Your task to perform on an android device: Open the web browser Image 0: 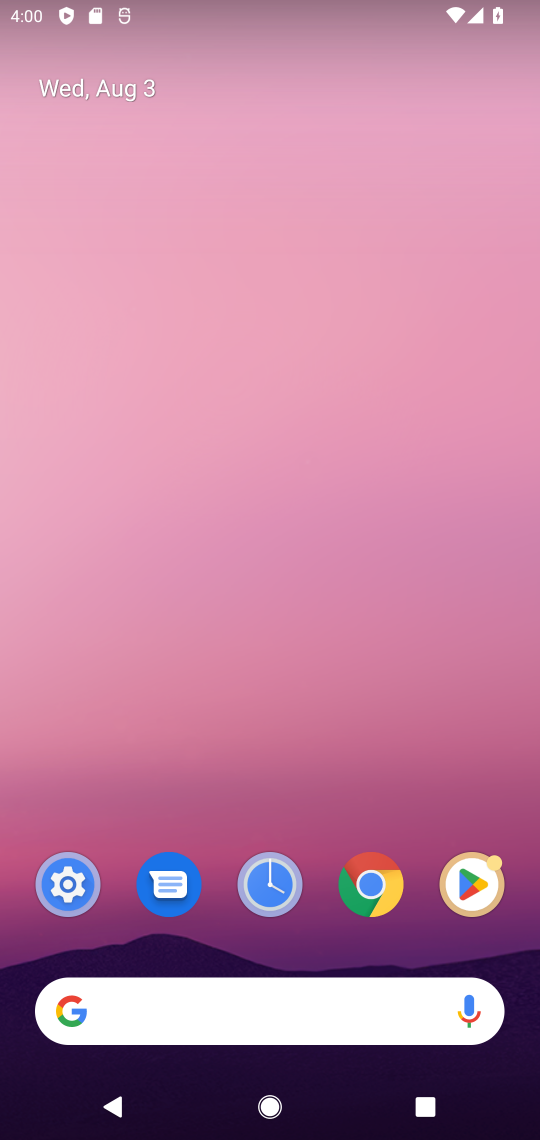
Step 0: press home button
Your task to perform on an android device: Open the web browser Image 1: 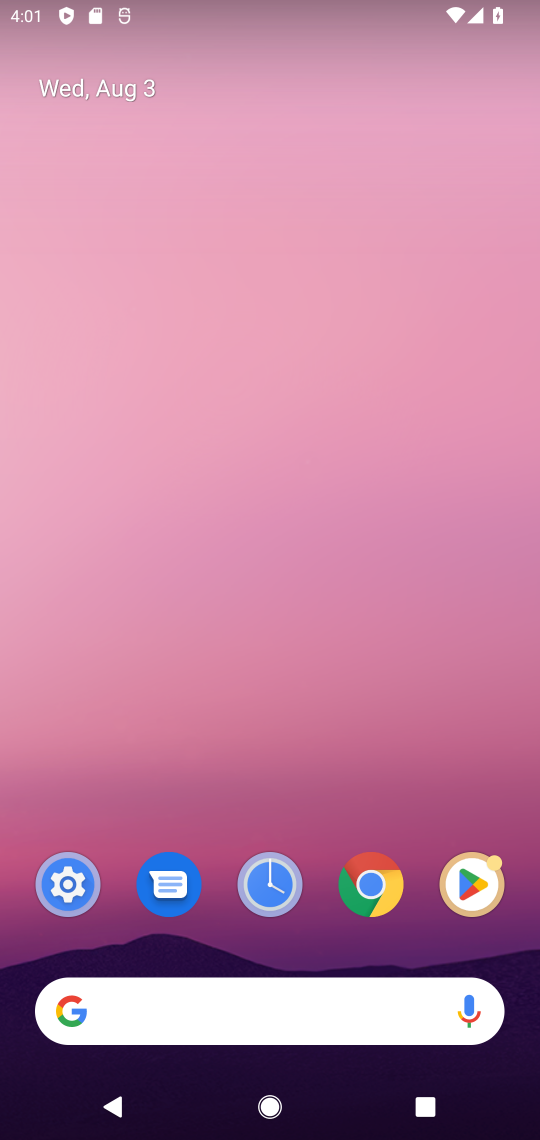
Step 1: click (363, 882)
Your task to perform on an android device: Open the web browser Image 2: 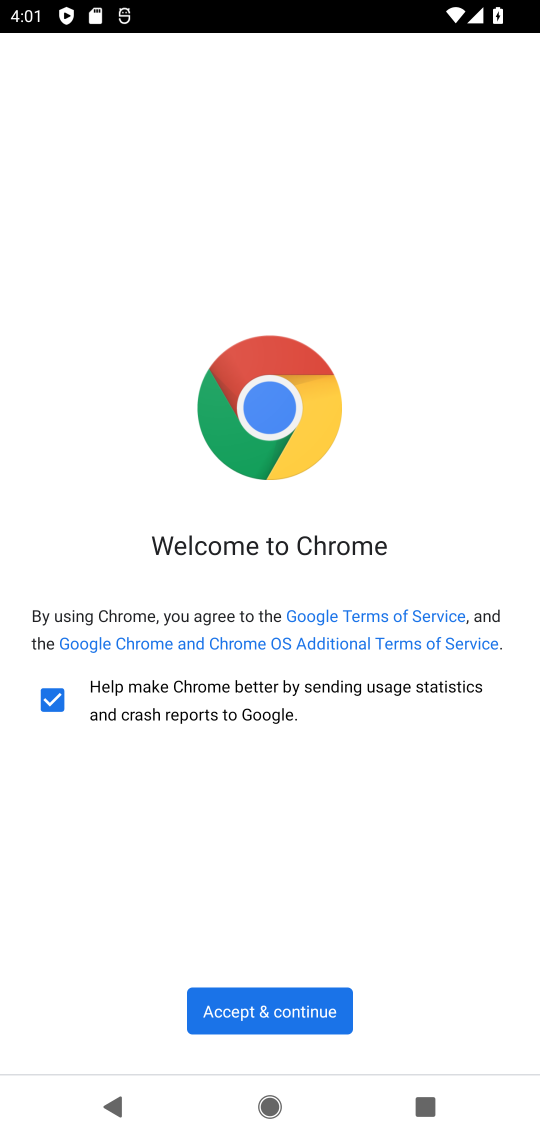
Step 2: click (267, 1003)
Your task to perform on an android device: Open the web browser Image 3: 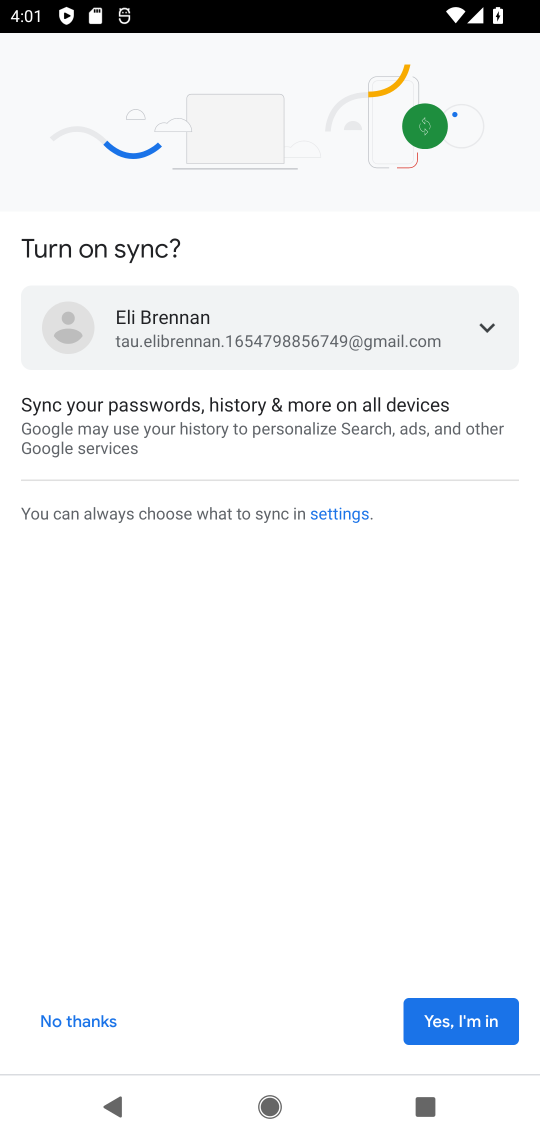
Step 3: click (465, 1013)
Your task to perform on an android device: Open the web browser Image 4: 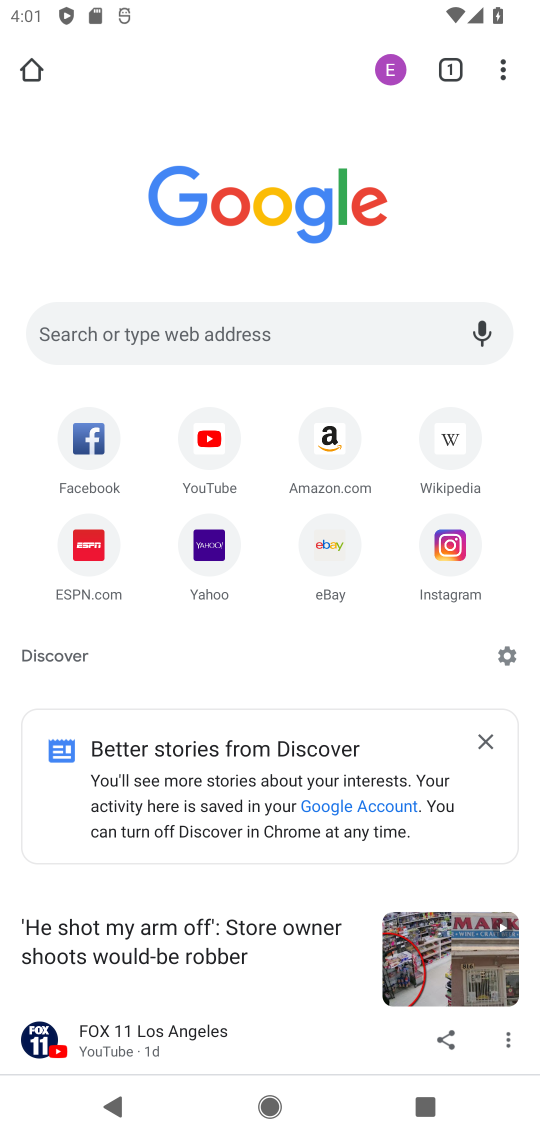
Step 4: task complete